Your task to perform on an android device: move a message to another label in the gmail app Image 0: 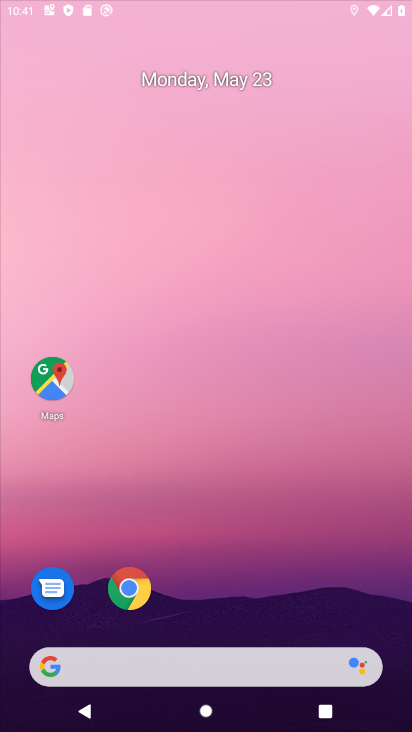
Step 0: click (412, 450)
Your task to perform on an android device: move a message to another label in the gmail app Image 1: 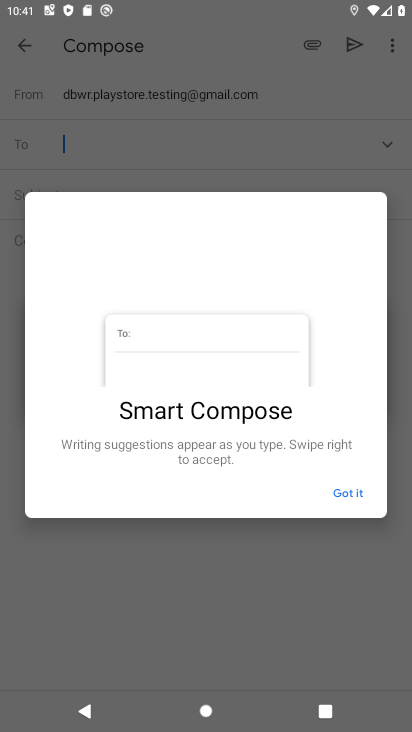
Step 1: press home button
Your task to perform on an android device: move a message to another label in the gmail app Image 2: 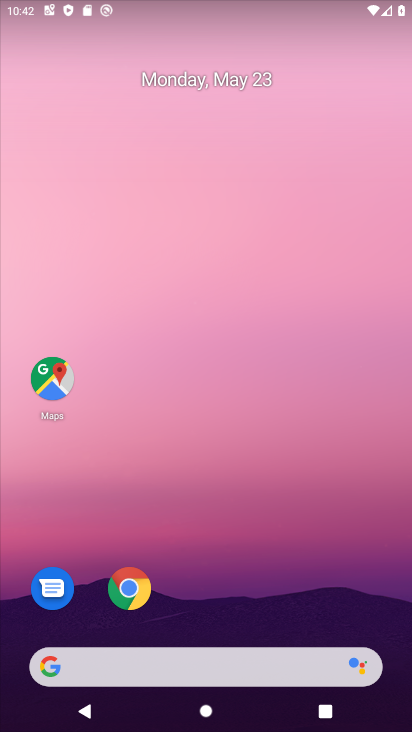
Step 2: drag from (217, 430) to (212, 1)
Your task to perform on an android device: move a message to another label in the gmail app Image 3: 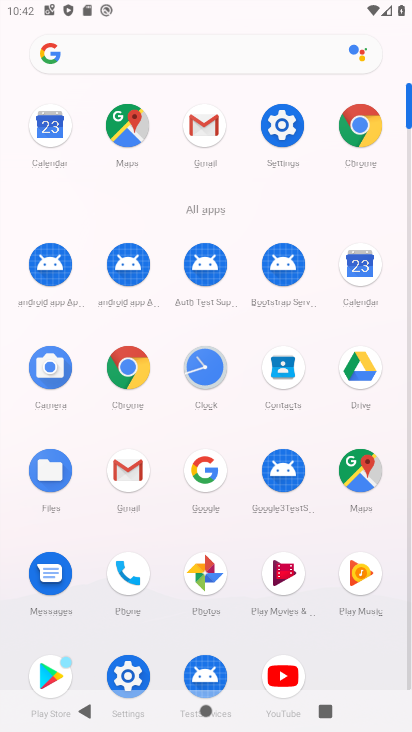
Step 3: click (202, 131)
Your task to perform on an android device: move a message to another label in the gmail app Image 4: 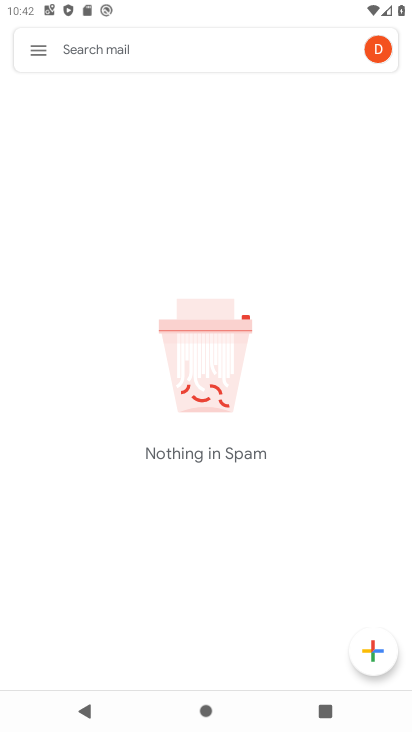
Step 4: click (36, 51)
Your task to perform on an android device: move a message to another label in the gmail app Image 5: 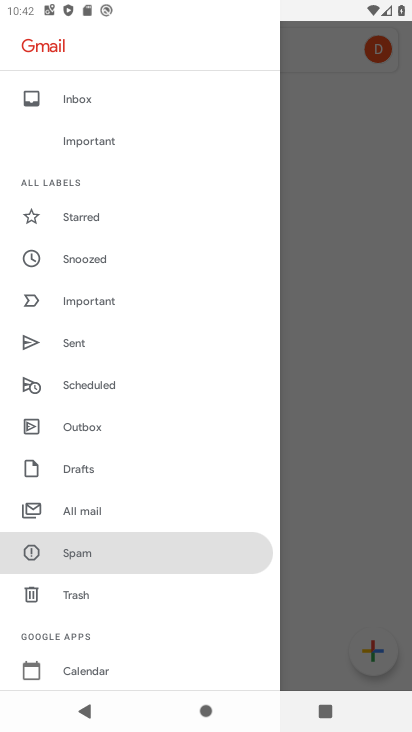
Step 5: click (84, 513)
Your task to perform on an android device: move a message to another label in the gmail app Image 6: 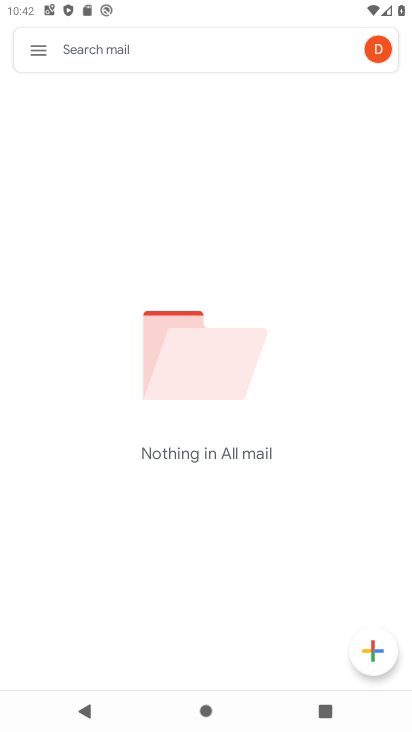
Step 6: task complete